Your task to perform on an android device: add a contact in the contacts app Image 0: 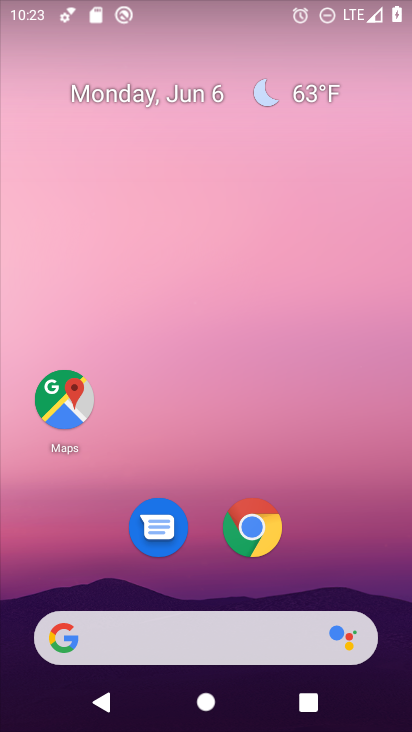
Step 0: drag from (363, 570) to (371, 106)
Your task to perform on an android device: add a contact in the contacts app Image 1: 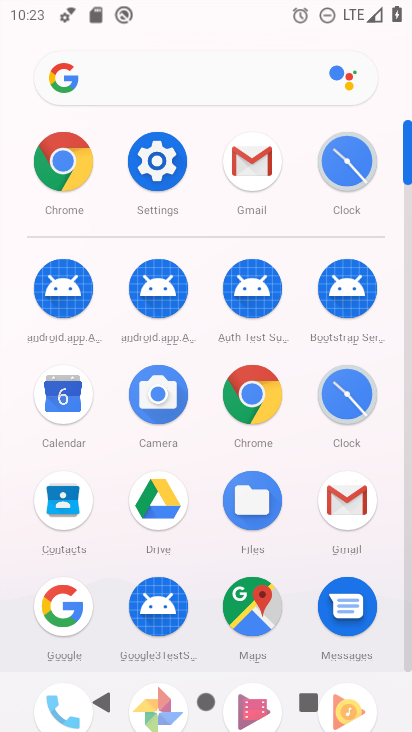
Step 1: click (69, 511)
Your task to perform on an android device: add a contact in the contacts app Image 2: 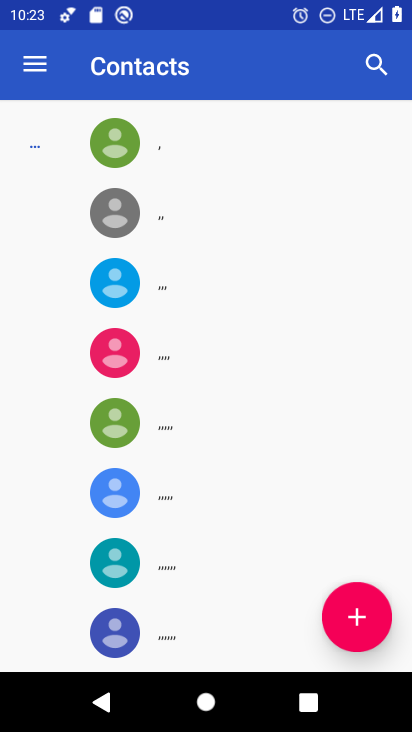
Step 2: click (368, 612)
Your task to perform on an android device: add a contact in the contacts app Image 3: 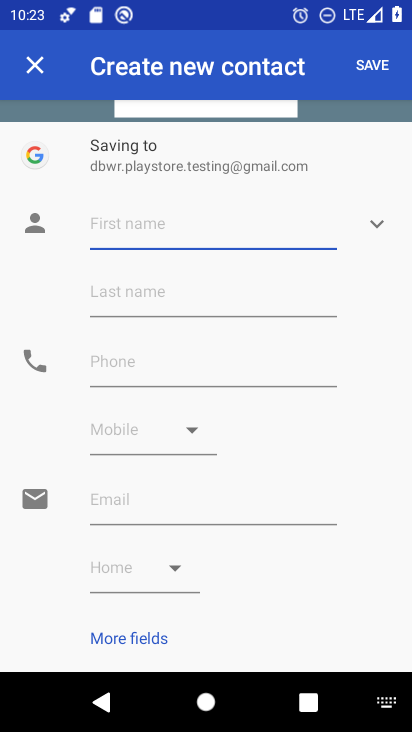
Step 3: click (150, 234)
Your task to perform on an android device: add a contact in the contacts app Image 4: 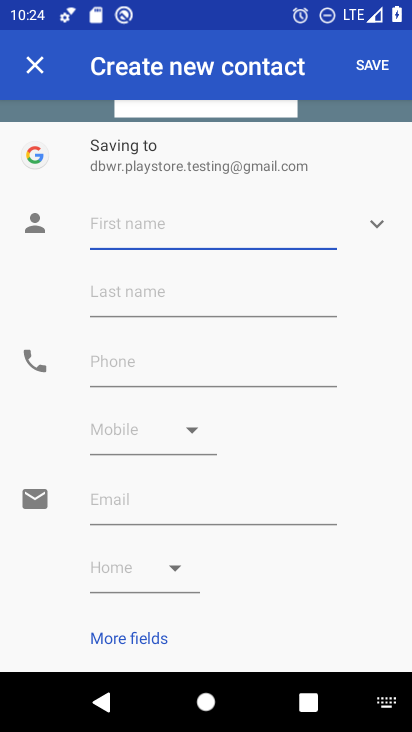
Step 4: type "fav"
Your task to perform on an android device: add a contact in the contacts app Image 5: 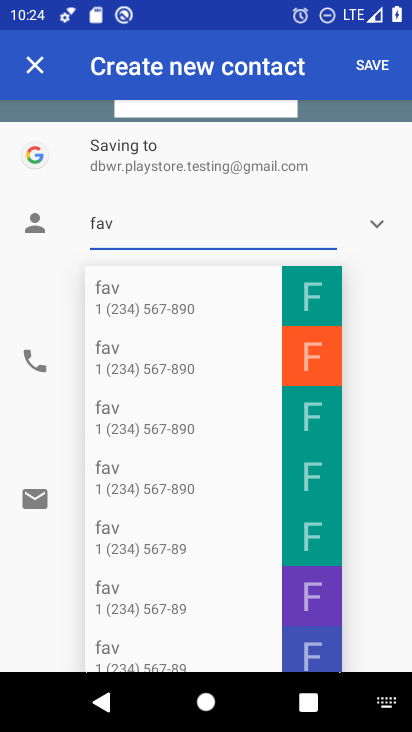
Step 5: click (386, 315)
Your task to perform on an android device: add a contact in the contacts app Image 6: 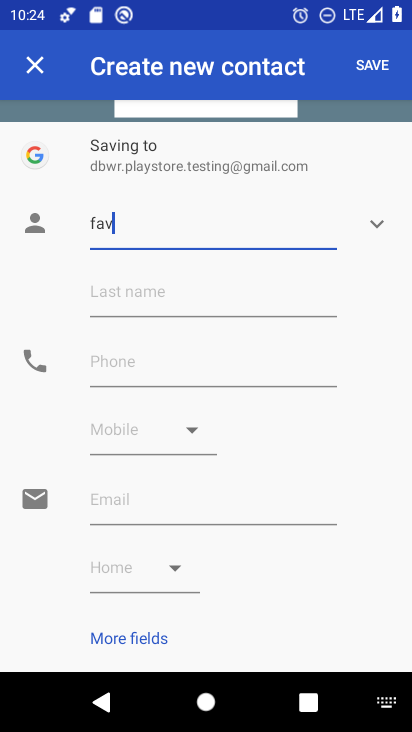
Step 6: click (154, 362)
Your task to perform on an android device: add a contact in the contacts app Image 7: 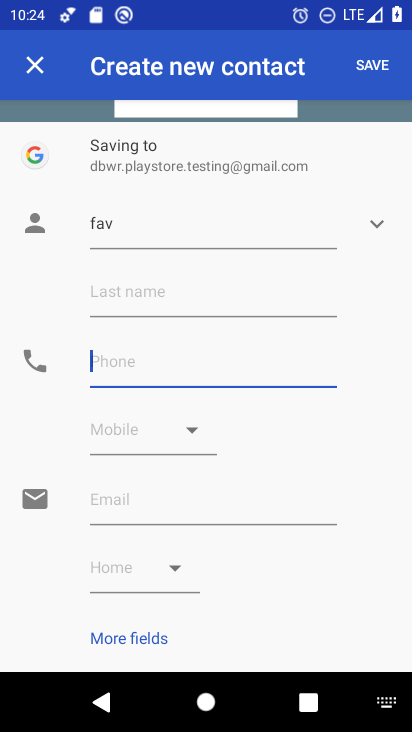
Step 7: type "1234567890"
Your task to perform on an android device: add a contact in the contacts app Image 8: 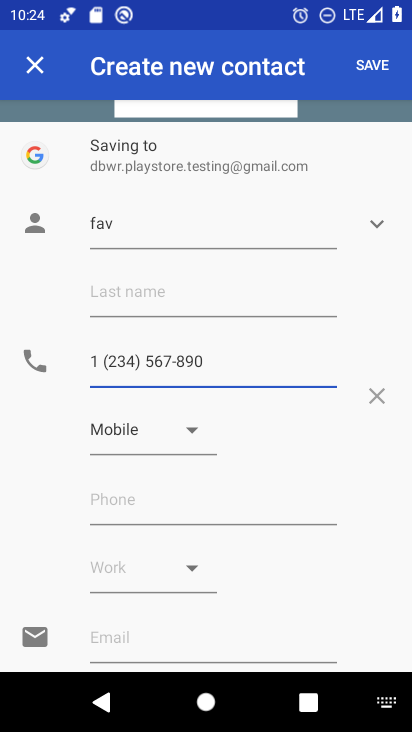
Step 8: click (365, 72)
Your task to perform on an android device: add a contact in the contacts app Image 9: 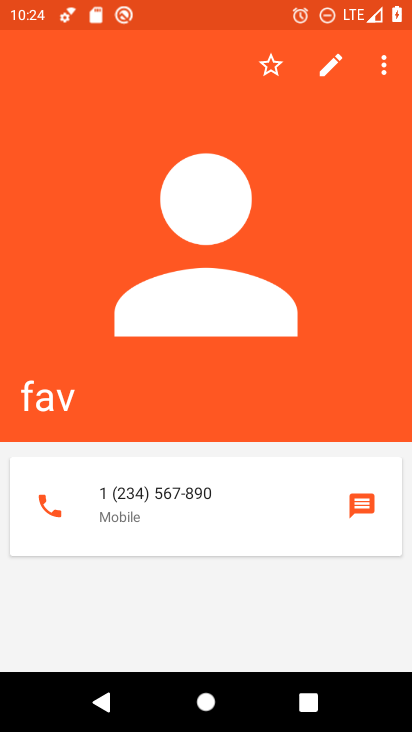
Step 9: task complete